Your task to perform on an android device: install app "Pandora - Music & Podcasts" Image 0: 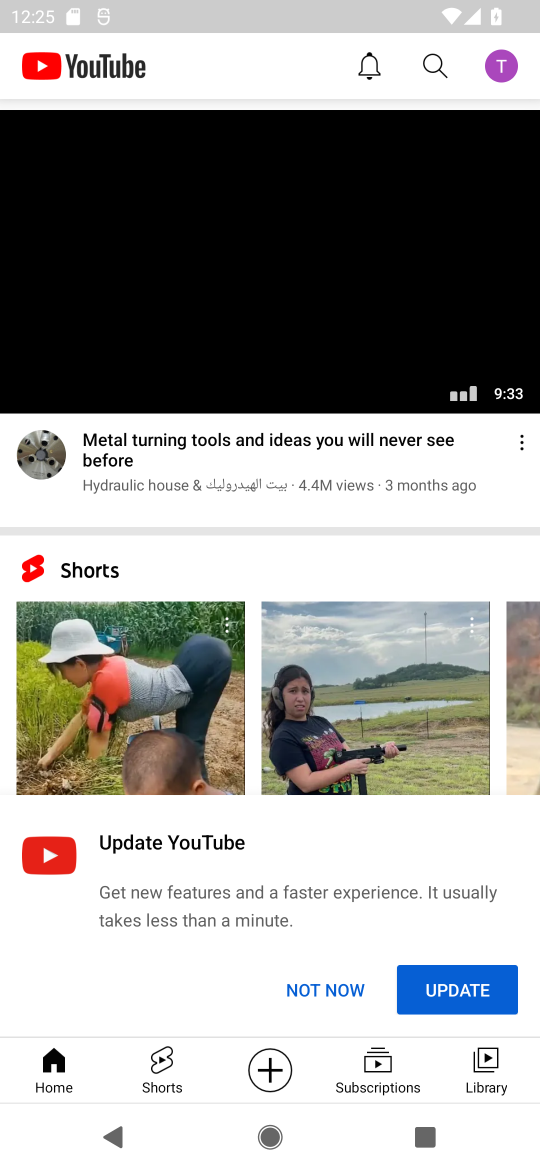
Step 0: press back button
Your task to perform on an android device: install app "Pandora - Music & Podcasts" Image 1: 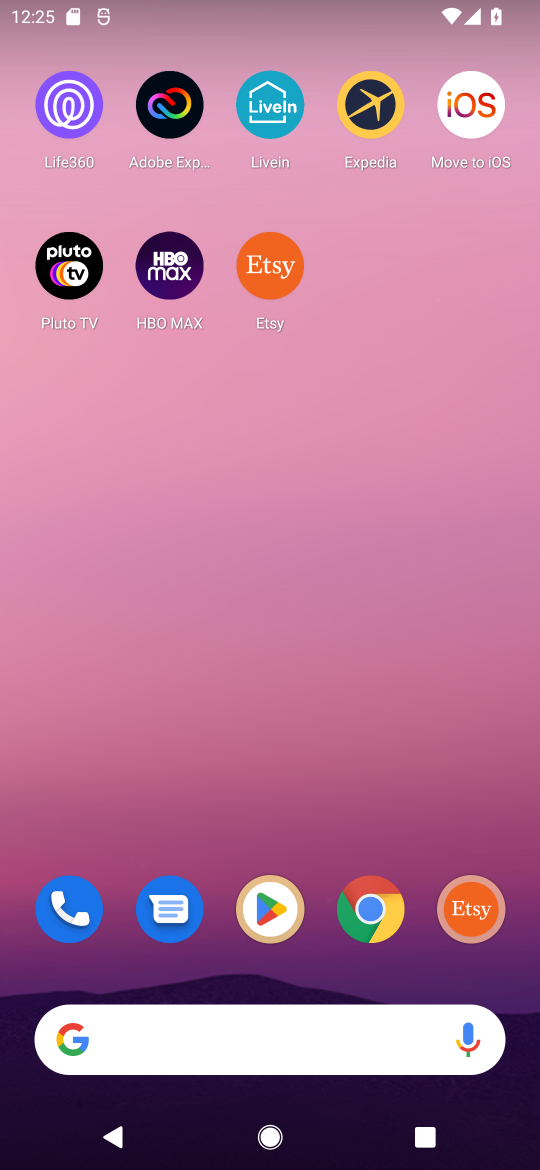
Step 1: click (288, 906)
Your task to perform on an android device: install app "Pandora - Music & Podcasts" Image 2: 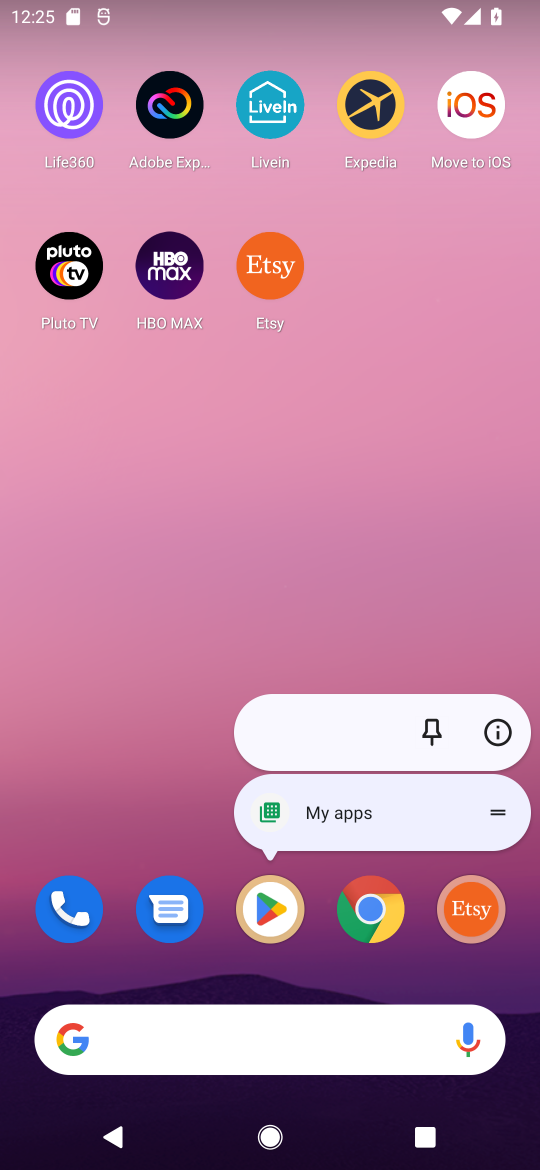
Step 2: click (269, 910)
Your task to perform on an android device: install app "Pandora - Music & Podcasts" Image 3: 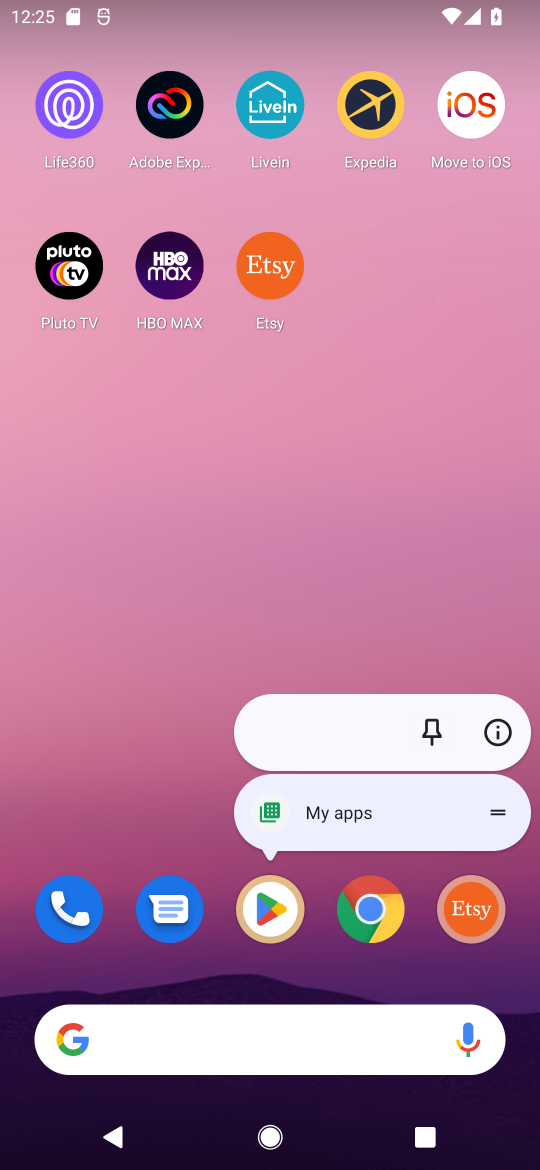
Step 3: click (267, 913)
Your task to perform on an android device: install app "Pandora - Music & Podcasts" Image 4: 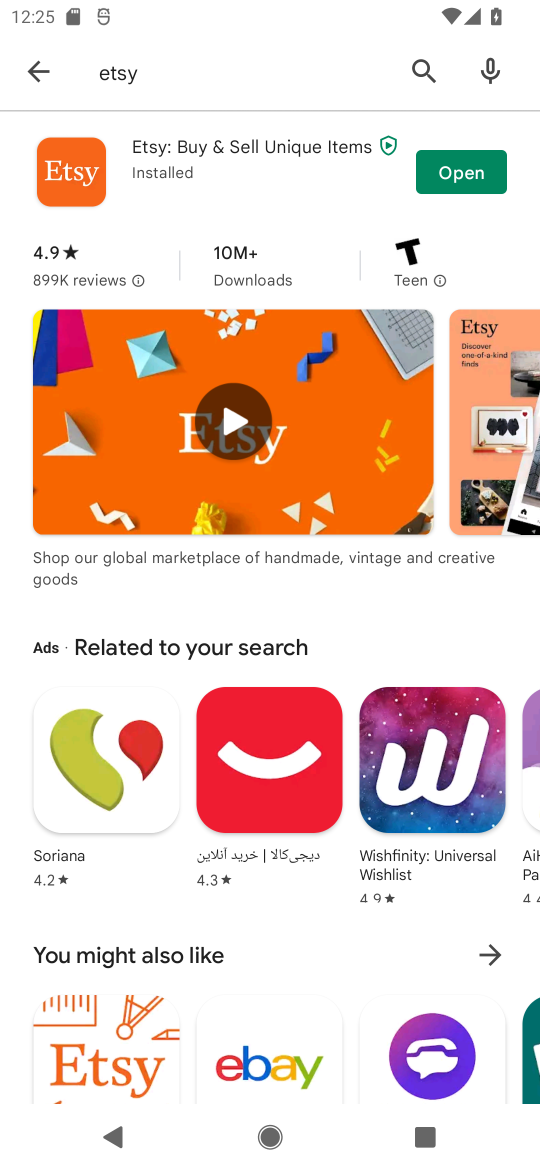
Step 4: click (423, 81)
Your task to perform on an android device: install app "Pandora - Music & Podcasts" Image 5: 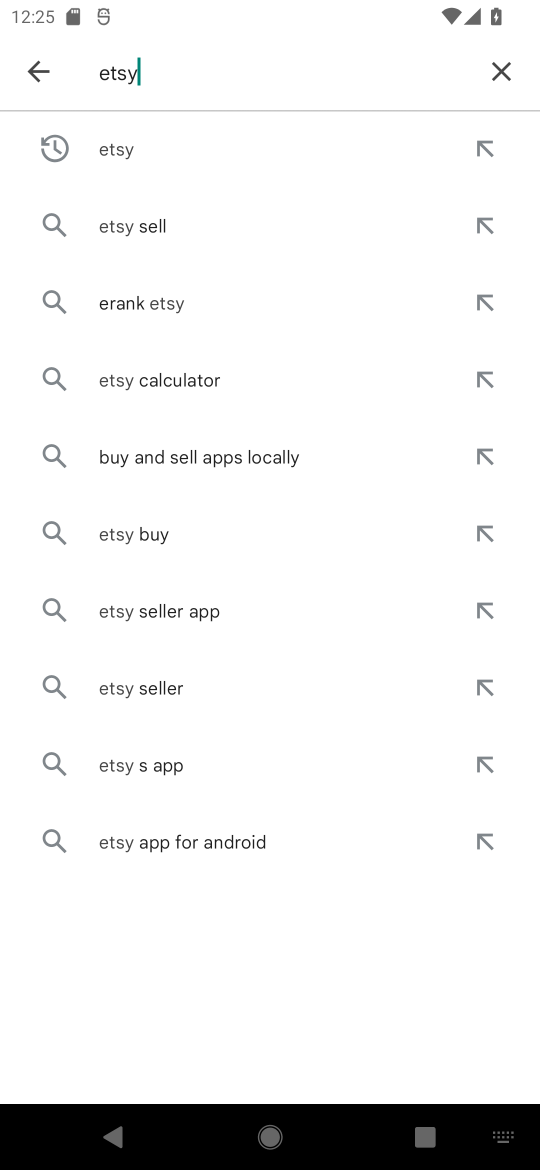
Step 5: click (495, 70)
Your task to perform on an android device: install app "Pandora - Music & Podcasts" Image 6: 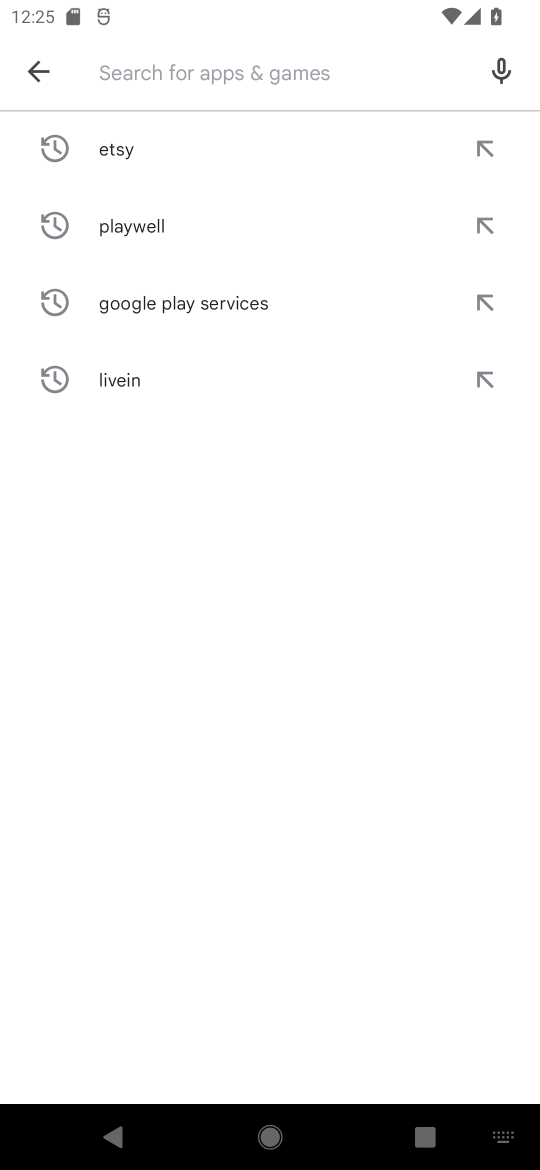
Step 6: type "pandora"
Your task to perform on an android device: install app "Pandora - Music & Podcasts" Image 7: 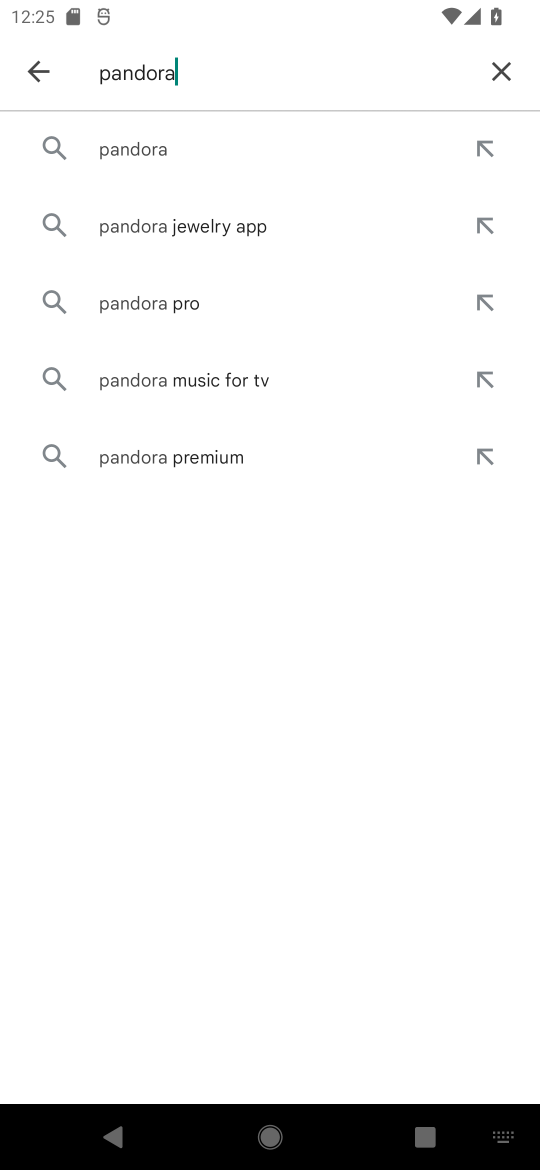
Step 7: click (169, 149)
Your task to perform on an android device: install app "Pandora - Music & Podcasts" Image 8: 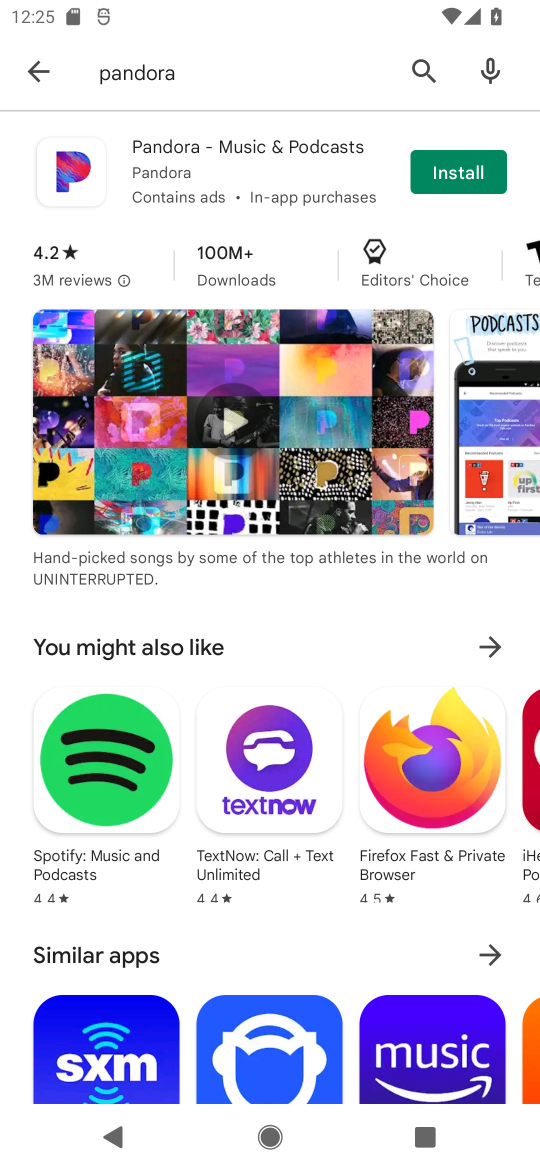
Step 8: click (474, 172)
Your task to perform on an android device: install app "Pandora - Music & Podcasts" Image 9: 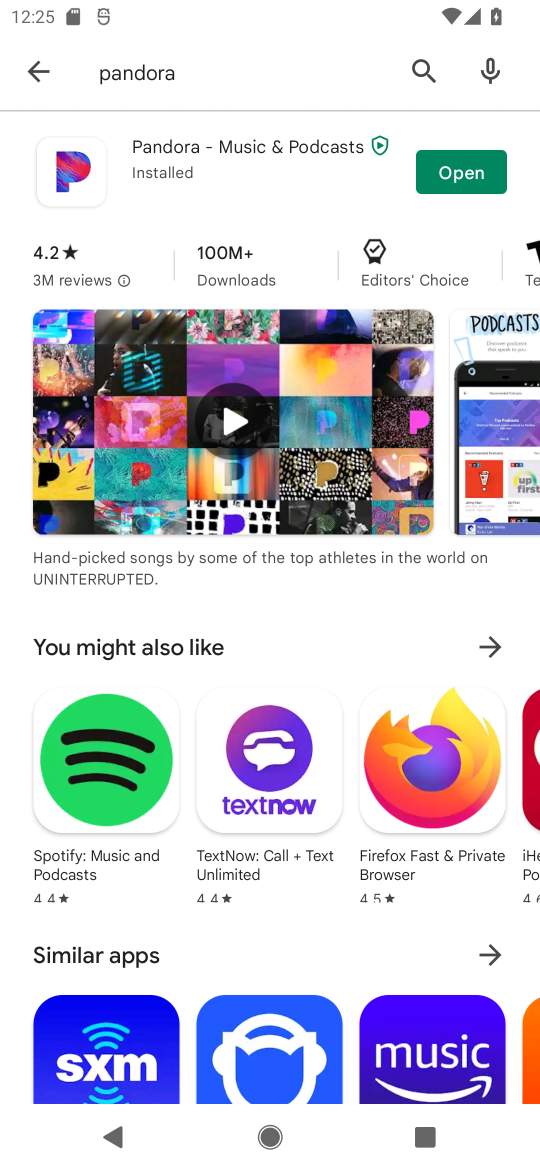
Step 9: task complete